Your task to perform on an android device: Show me popular games on the Play Store Image 0: 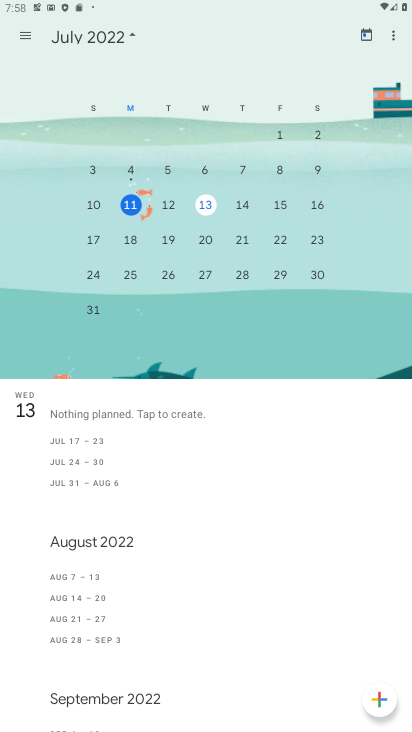
Step 0: press back button
Your task to perform on an android device: Show me popular games on the Play Store Image 1: 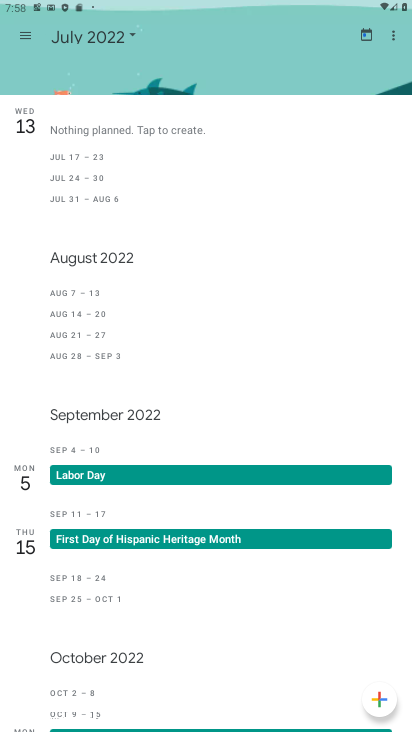
Step 1: press home button
Your task to perform on an android device: Show me popular games on the Play Store Image 2: 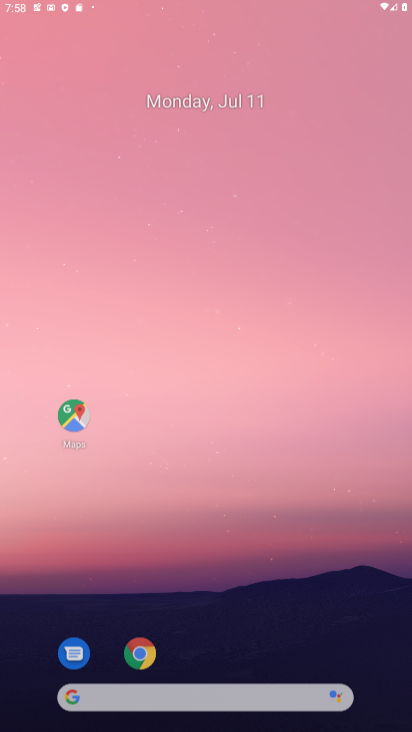
Step 2: press back button
Your task to perform on an android device: Show me popular games on the Play Store Image 3: 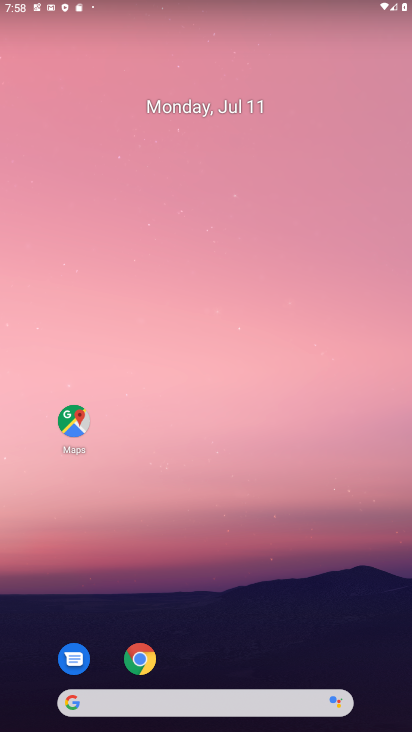
Step 3: drag from (205, 675) to (119, 79)
Your task to perform on an android device: Show me popular games on the Play Store Image 4: 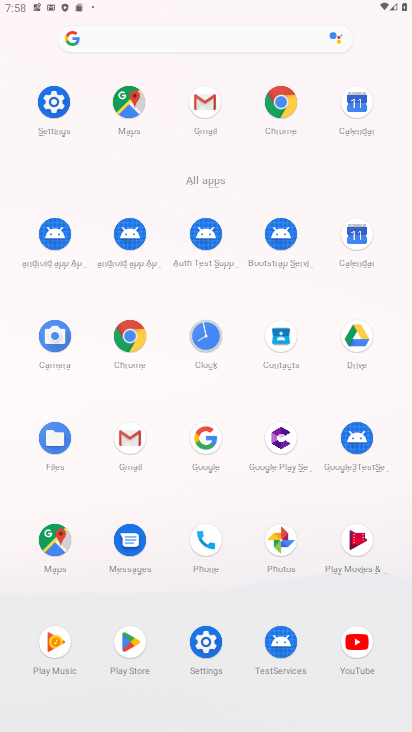
Step 4: click (129, 632)
Your task to perform on an android device: Show me popular games on the Play Store Image 5: 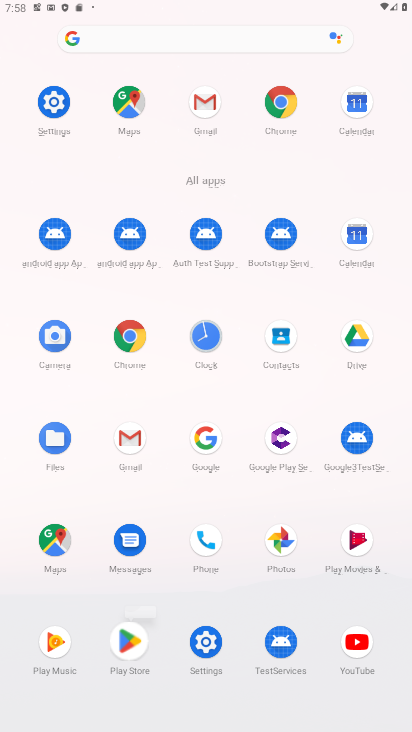
Step 5: click (144, 639)
Your task to perform on an android device: Show me popular games on the Play Store Image 6: 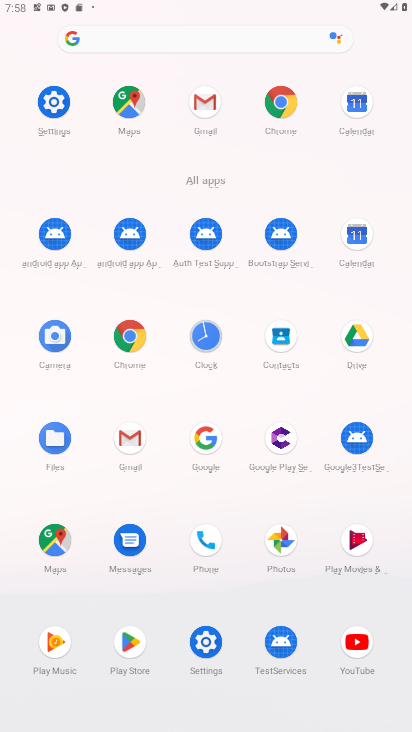
Step 6: click (145, 638)
Your task to perform on an android device: Show me popular games on the Play Store Image 7: 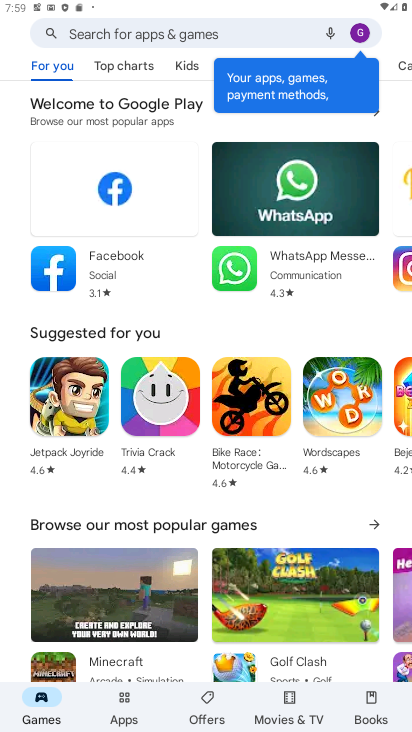
Step 7: press back button
Your task to perform on an android device: Show me popular games on the Play Store Image 8: 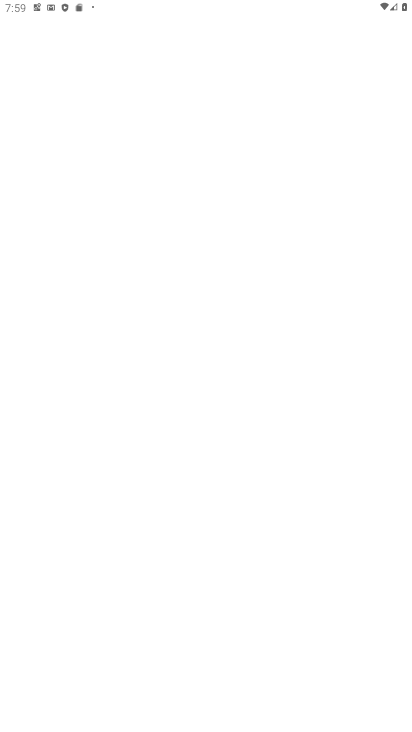
Step 8: press back button
Your task to perform on an android device: Show me popular games on the Play Store Image 9: 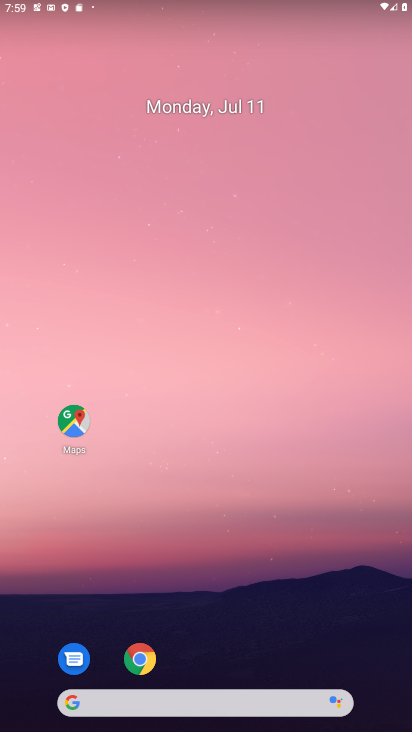
Step 9: drag from (201, 559) to (156, 2)
Your task to perform on an android device: Show me popular games on the Play Store Image 10: 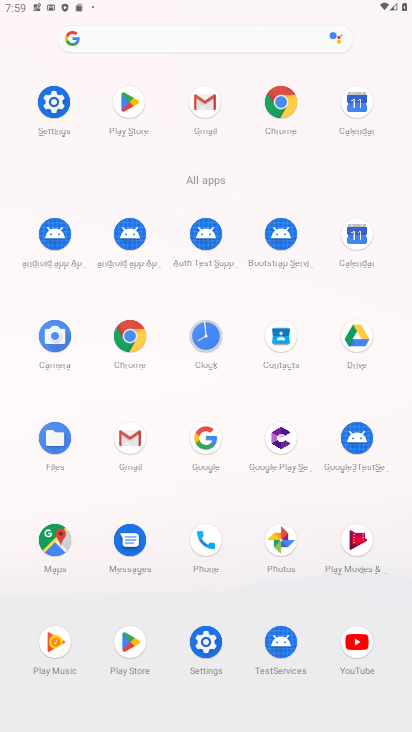
Step 10: click (134, 628)
Your task to perform on an android device: Show me popular games on the Play Store Image 11: 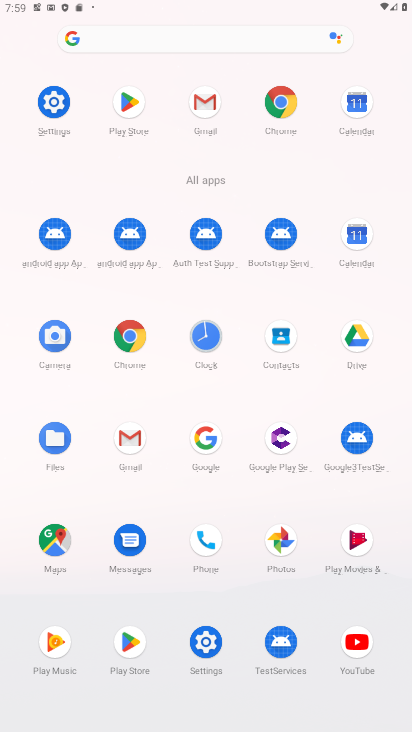
Step 11: click (131, 625)
Your task to perform on an android device: Show me popular games on the Play Store Image 12: 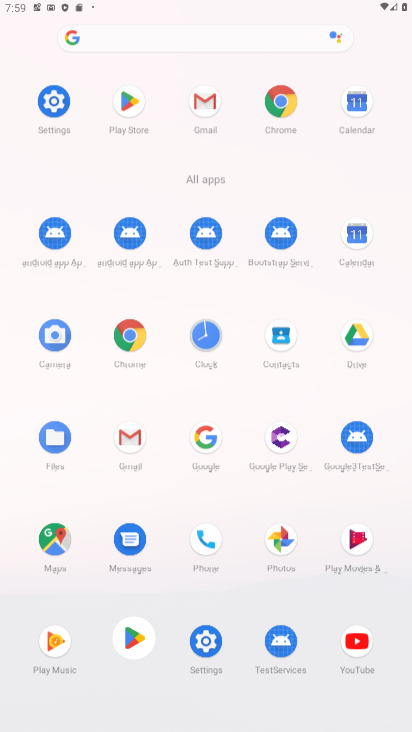
Step 12: click (134, 624)
Your task to perform on an android device: Show me popular games on the Play Store Image 13: 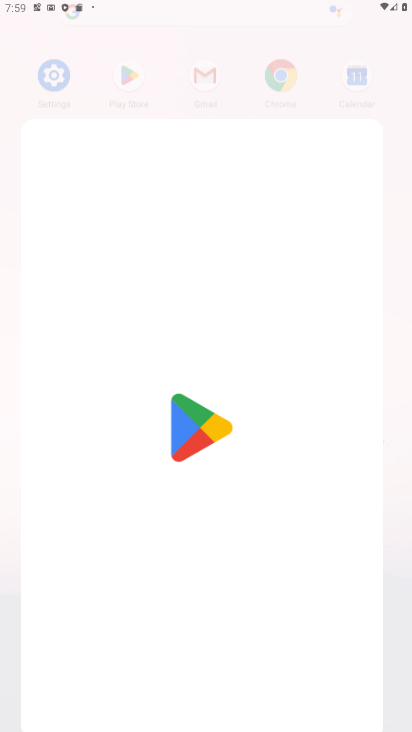
Step 13: click (136, 620)
Your task to perform on an android device: Show me popular games on the Play Store Image 14: 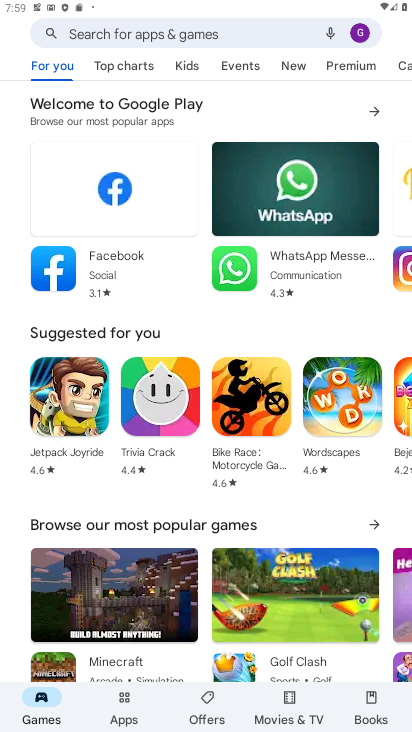
Step 14: click (106, 30)
Your task to perform on an android device: Show me popular games on the Play Store Image 15: 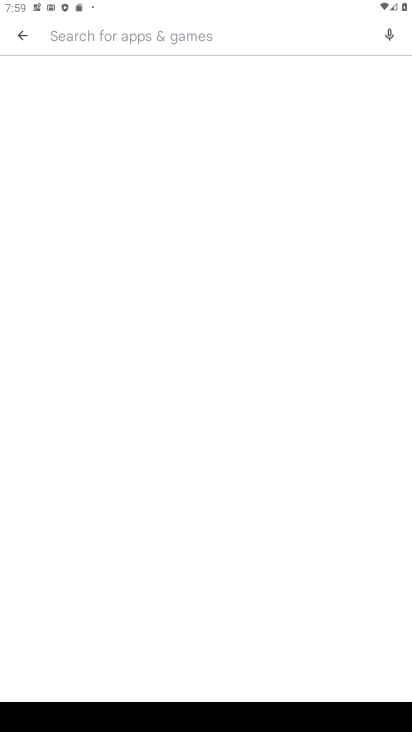
Step 15: type "popular games"
Your task to perform on an android device: Show me popular games on the Play Store Image 16: 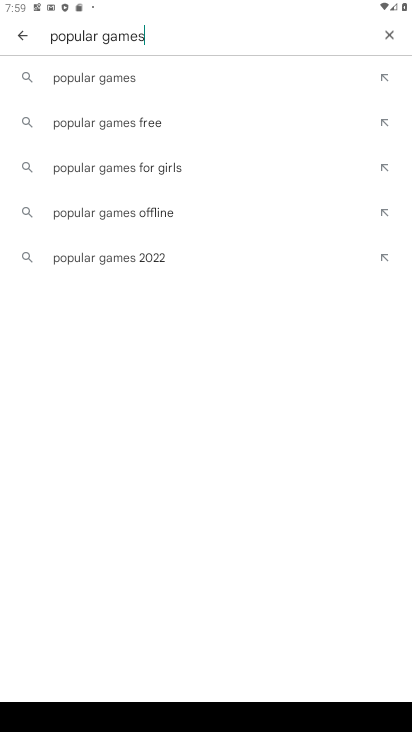
Step 16: click (91, 71)
Your task to perform on an android device: Show me popular games on the Play Store Image 17: 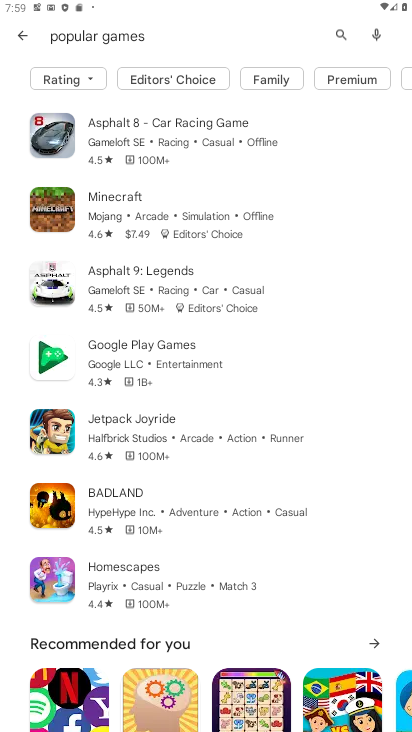
Step 17: task complete